Your task to perform on an android device: Go to Wikipedia Image 0: 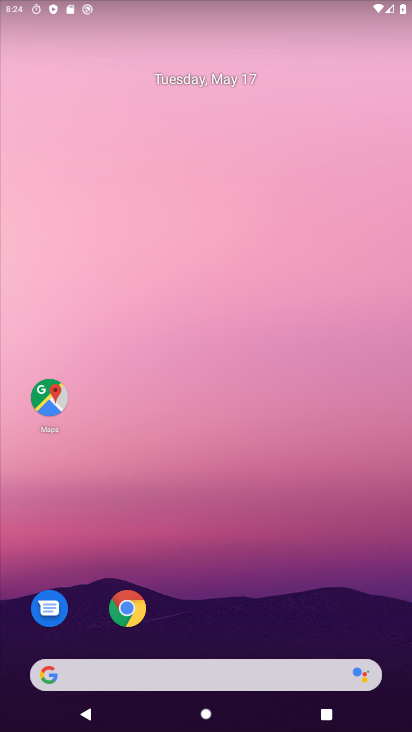
Step 0: drag from (323, 585) to (315, 90)
Your task to perform on an android device: Go to Wikipedia Image 1: 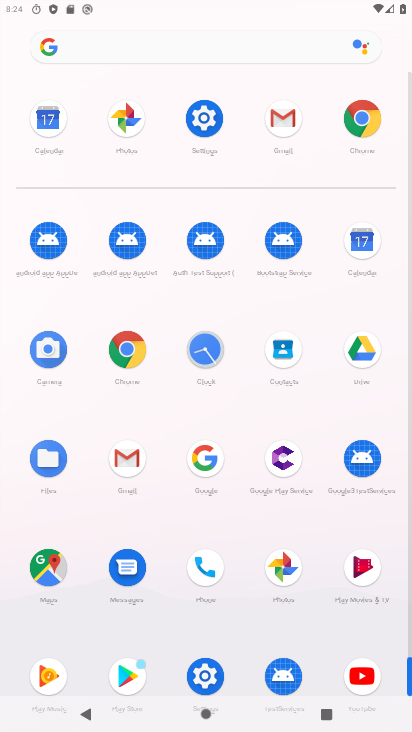
Step 1: click (359, 120)
Your task to perform on an android device: Go to Wikipedia Image 2: 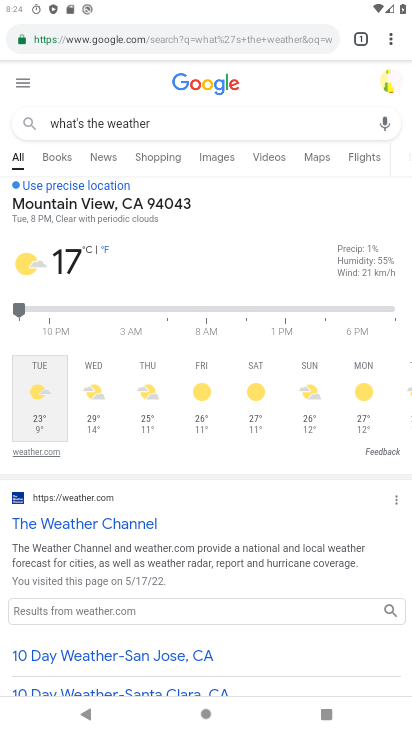
Step 2: click (165, 43)
Your task to perform on an android device: Go to Wikipedia Image 3: 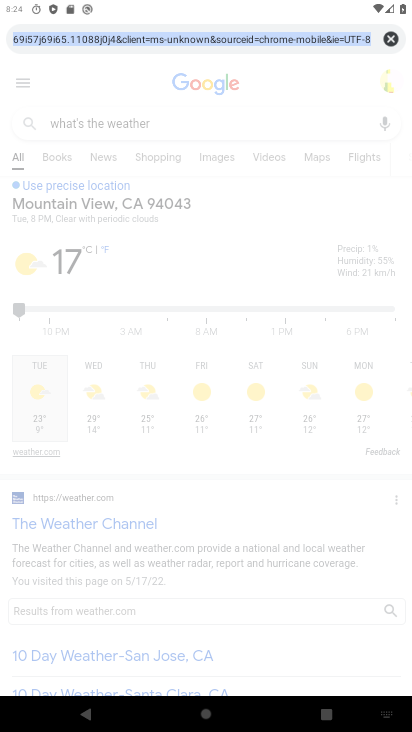
Step 3: click (383, 35)
Your task to perform on an android device: Go to Wikipedia Image 4: 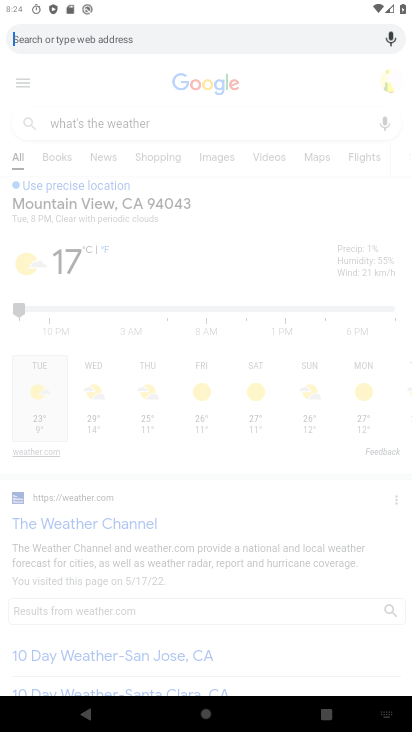
Step 4: type "wikipedia"
Your task to perform on an android device: Go to Wikipedia Image 5: 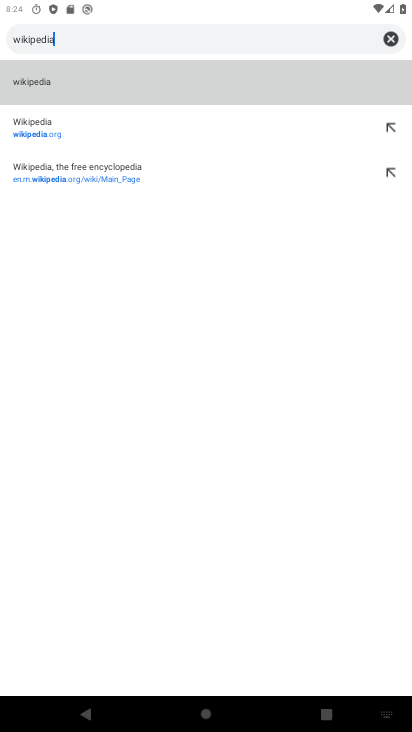
Step 5: click (68, 134)
Your task to perform on an android device: Go to Wikipedia Image 6: 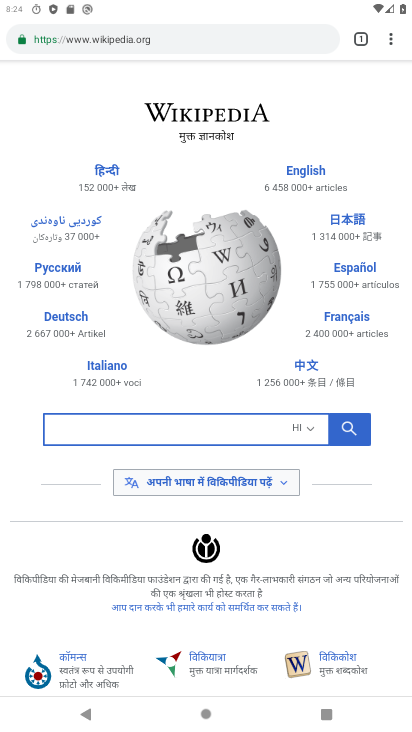
Step 6: task complete